Your task to perform on an android device: turn off airplane mode Image 0: 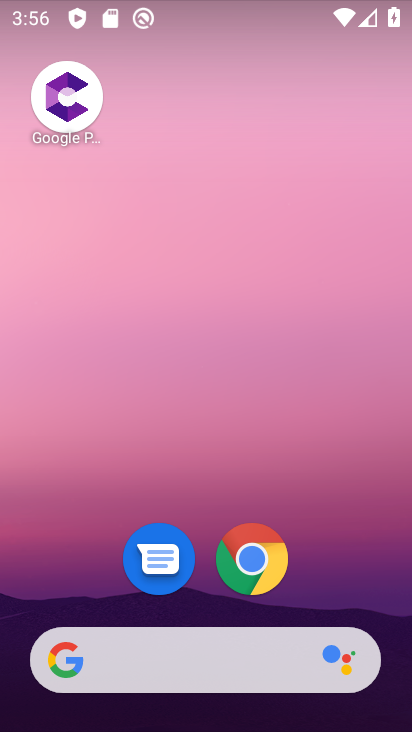
Step 0: drag from (316, 10) to (339, 432)
Your task to perform on an android device: turn off airplane mode Image 1: 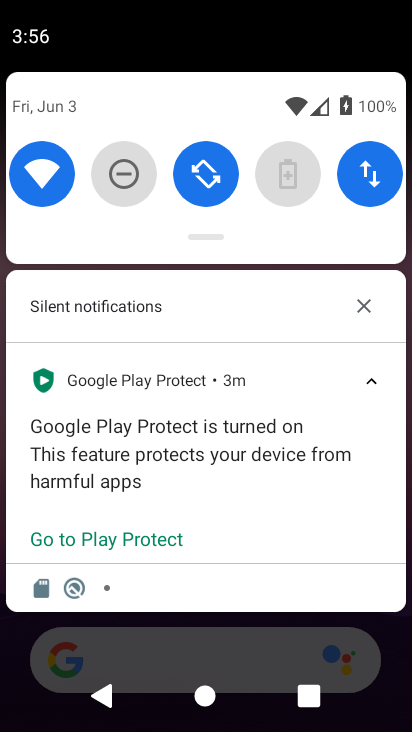
Step 1: task complete